Your task to perform on an android device: Show me productivity apps on the Play Store Image 0: 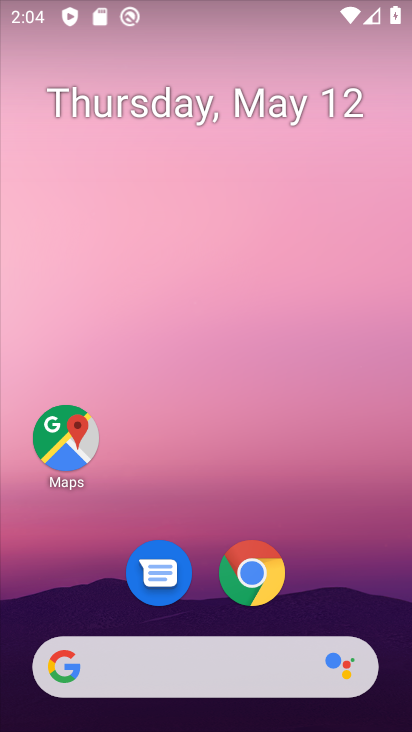
Step 0: click (292, 158)
Your task to perform on an android device: Show me productivity apps on the Play Store Image 1: 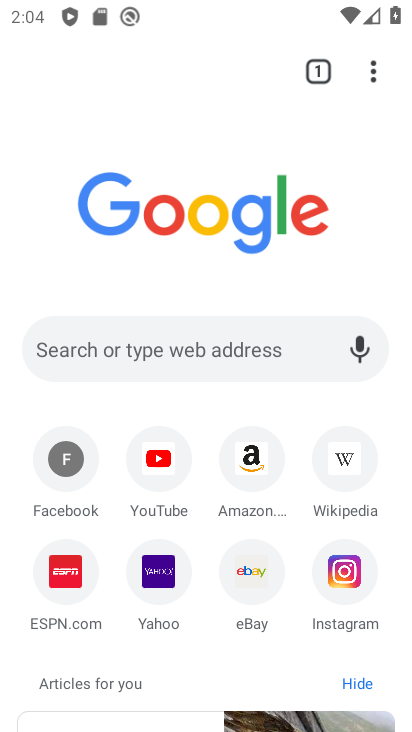
Step 1: drag from (175, 630) to (275, 129)
Your task to perform on an android device: Show me productivity apps on the Play Store Image 2: 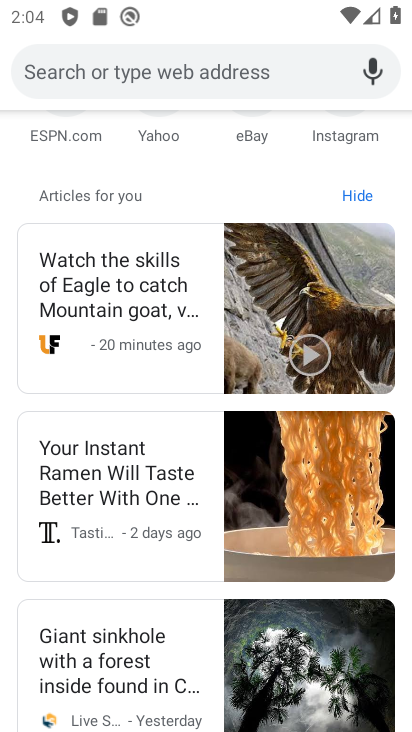
Step 2: press home button
Your task to perform on an android device: Show me productivity apps on the Play Store Image 3: 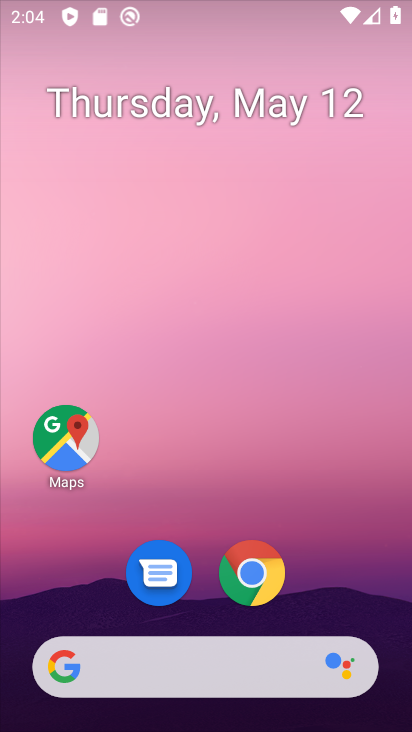
Step 3: drag from (206, 561) to (230, 166)
Your task to perform on an android device: Show me productivity apps on the Play Store Image 4: 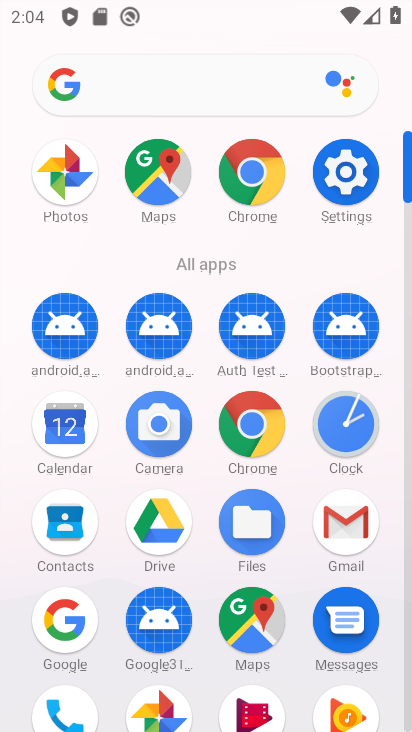
Step 4: drag from (209, 663) to (232, 269)
Your task to perform on an android device: Show me productivity apps on the Play Store Image 5: 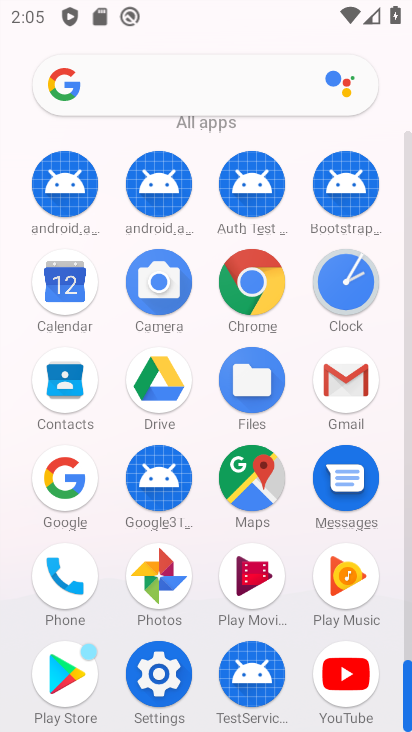
Step 5: click (62, 665)
Your task to perform on an android device: Show me productivity apps on the Play Store Image 6: 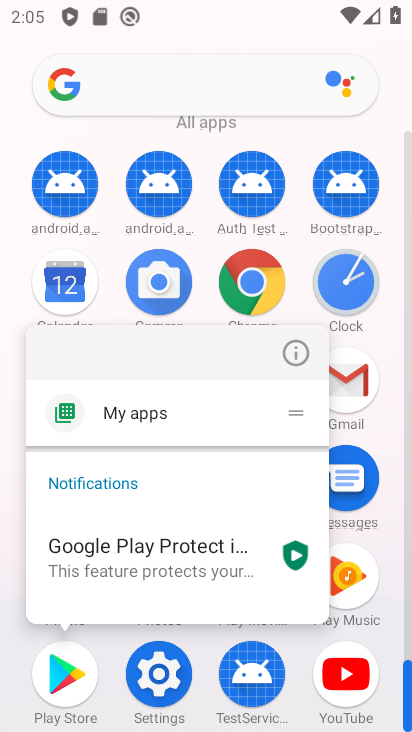
Step 6: click (291, 347)
Your task to perform on an android device: Show me productivity apps on the Play Store Image 7: 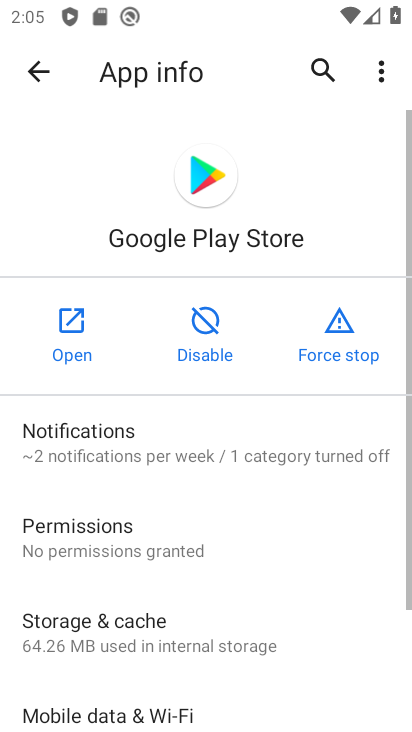
Step 7: click (49, 324)
Your task to perform on an android device: Show me productivity apps on the Play Store Image 8: 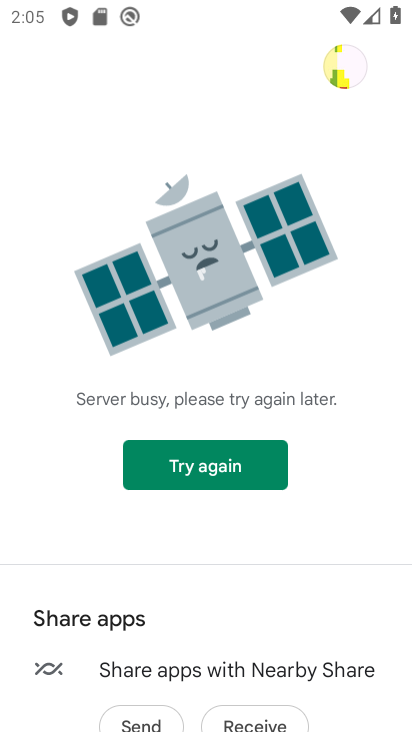
Step 8: drag from (218, 591) to (227, 223)
Your task to perform on an android device: Show me productivity apps on the Play Store Image 9: 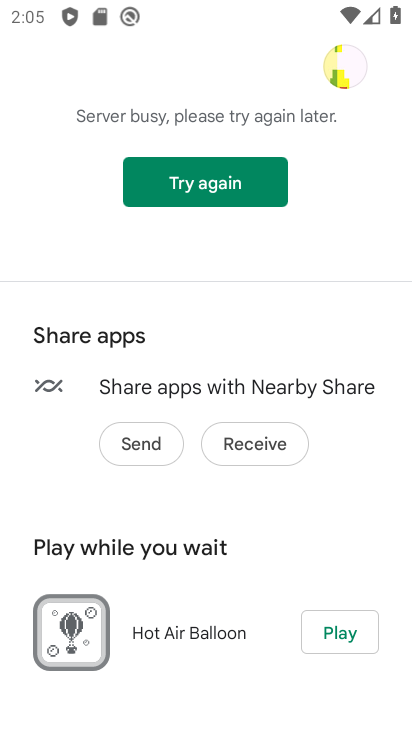
Step 9: click (234, 189)
Your task to perform on an android device: Show me productivity apps on the Play Store Image 10: 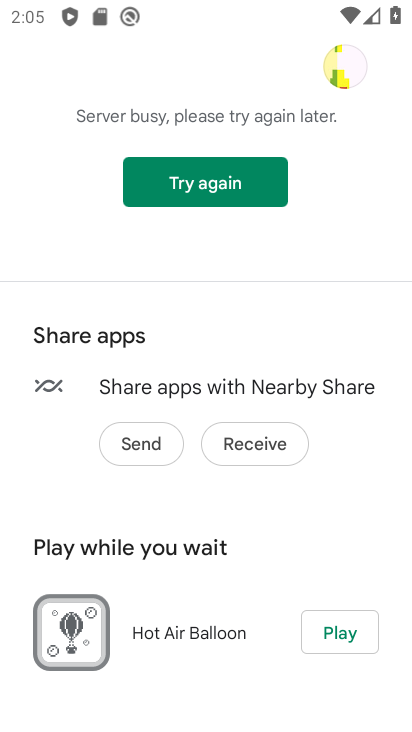
Step 10: drag from (220, 607) to (224, 258)
Your task to perform on an android device: Show me productivity apps on the Play Store Image 11: 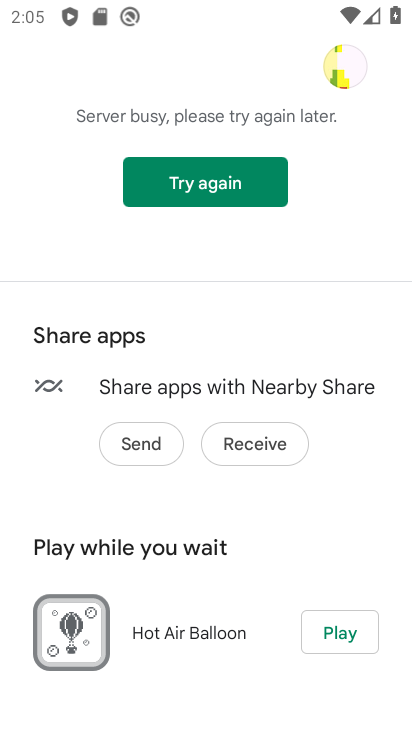
Step 11: click (205, 182)
Your task to perform on an android device: Show me productivity apps on the Play Store Image 12: 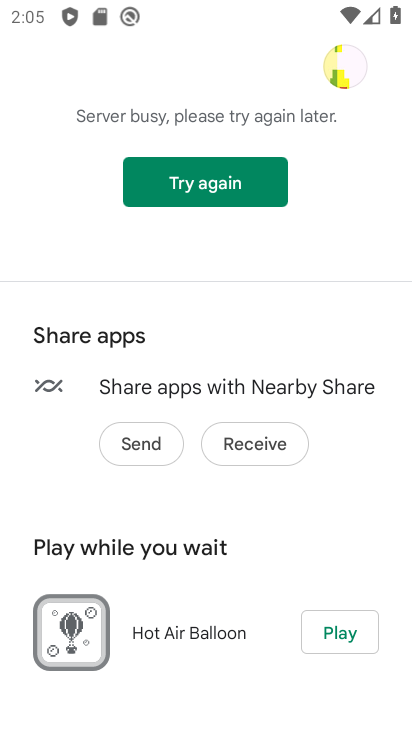
Step 12: click (218, 176)
Your task to perform on an android device: Show me productivity apps on the Play Store Image 13: 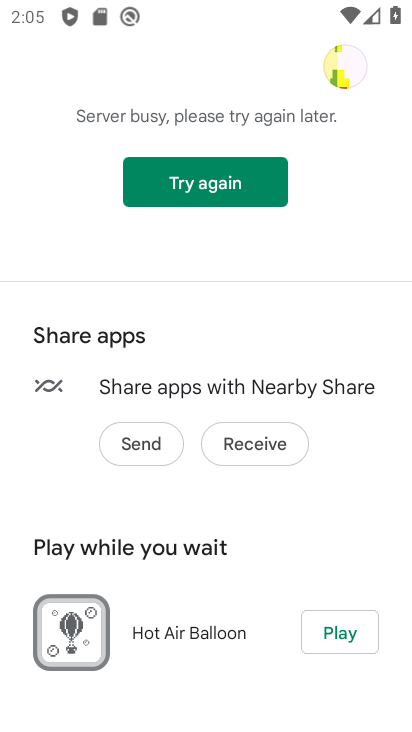
Step 13: click (226, 176)
Your task to perform on an android device: Show me productivity apps on the Play Store Image 14: 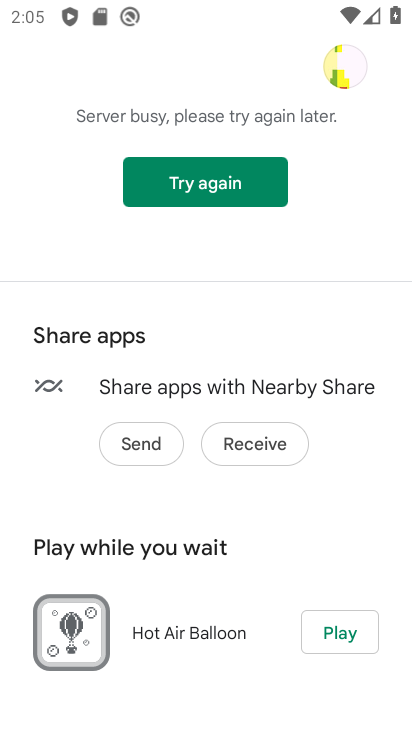
Step 14: drag from (243, 525) to (262, 204)
Your task to perform on an android device: Show me productivity apps on the Play Store Image 15: 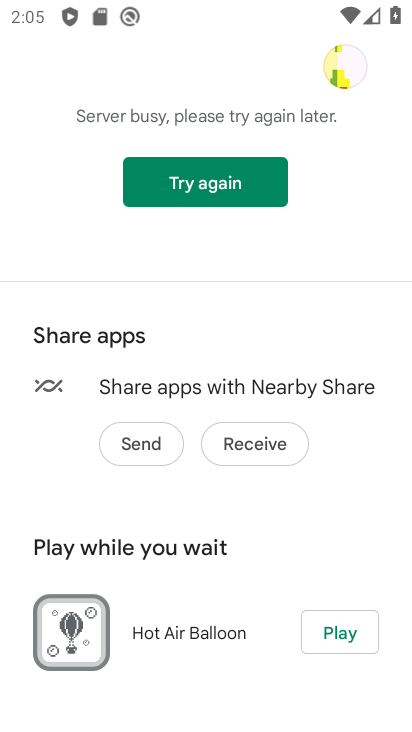
Step 15: click (228, 167)
Your task to perform on an android device: Show me productivity apps on the Play Store Image 16: 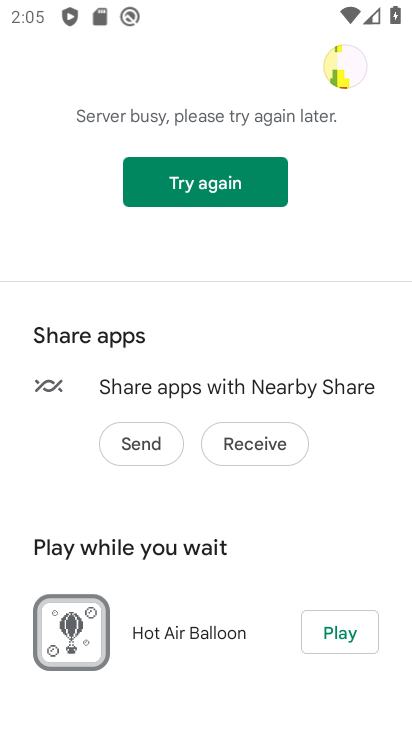
Step 16: click (228, 167)
Your task to perform on an android device: Show me productivity apps on the Play Store Image 17: 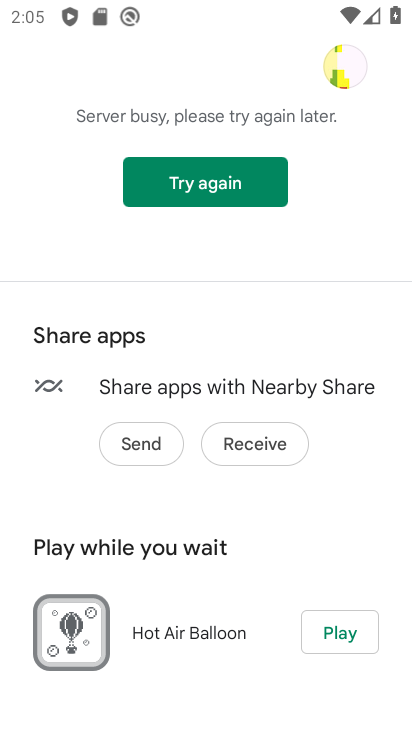
Step 17: task complete